Your task to perform on an android device: Open Yahoo.com Image 0: 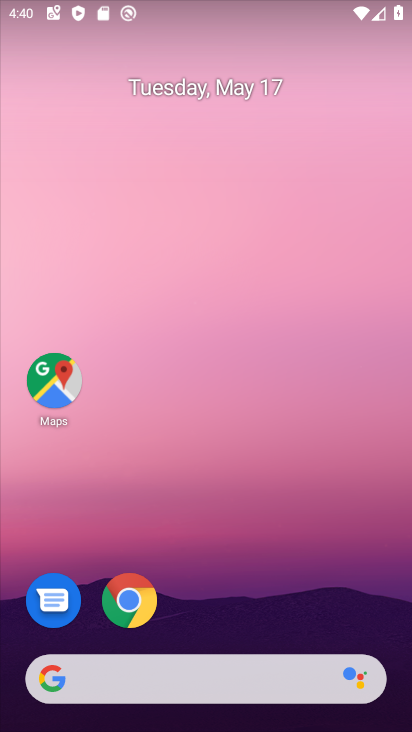
Step 0: click (136, 593)
Your task to perform on an android device: Open Yahoo.com Image 1: 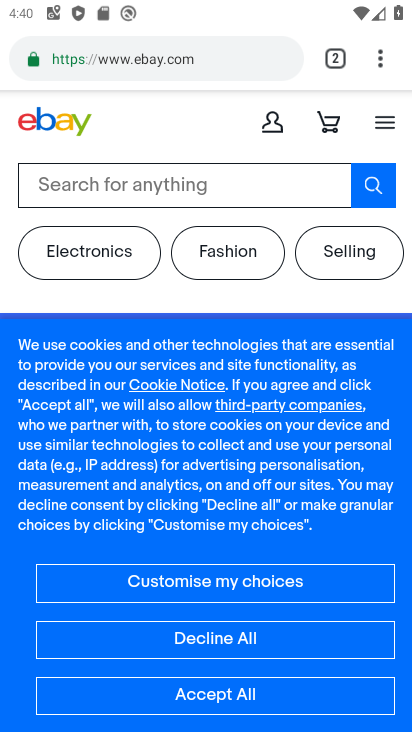
Step 1: click (208, 59)
Your task to perform on an android device: Open Yahoo.com Image 2: 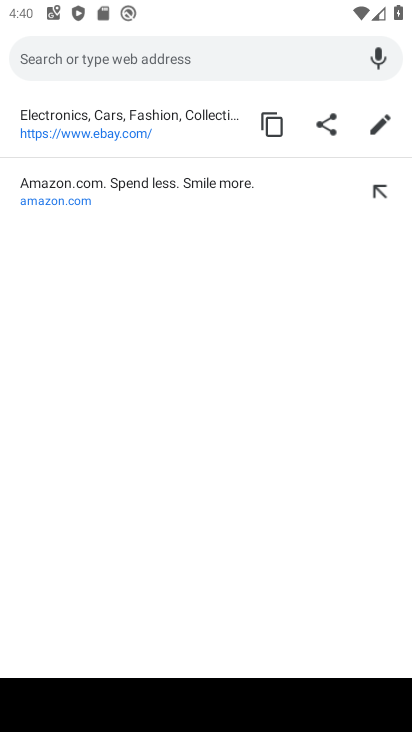
Step 2: type "Yahoo.com"
Your task to perform on an android device: Open Yahoo.com Image 3: 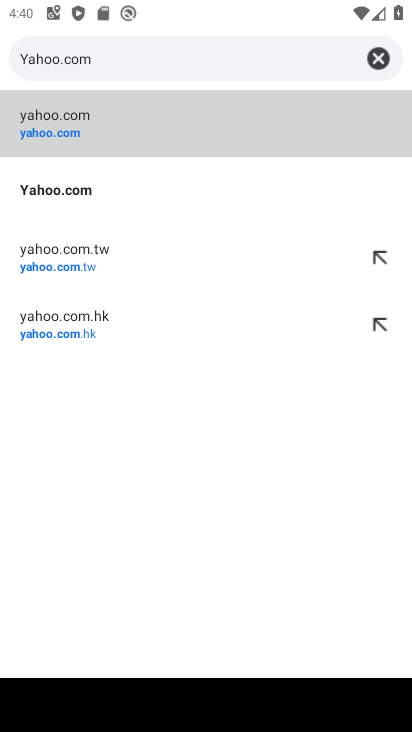
Step 3: click (61, 141)
Your task to perform on an android device: Open Yahoo.com Image 4: 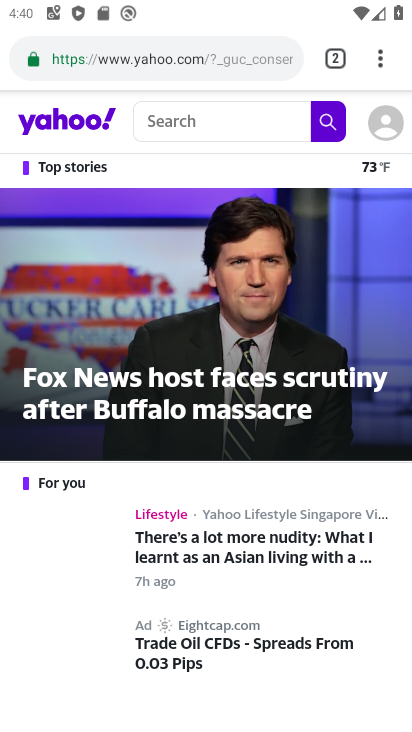
Step 4: task complete